Your task to perform on an android device: Is it going to rain today? Image 0: 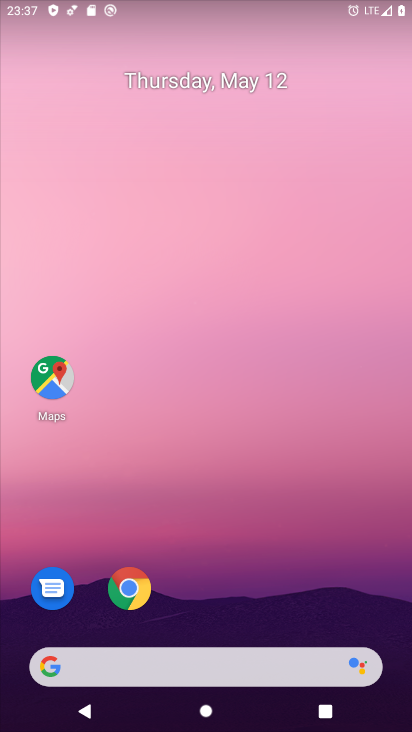
Step 0: drag from (148, 595) to (220, 166)
Your task to perform on an android device: Is it going to rain today? Image 1: 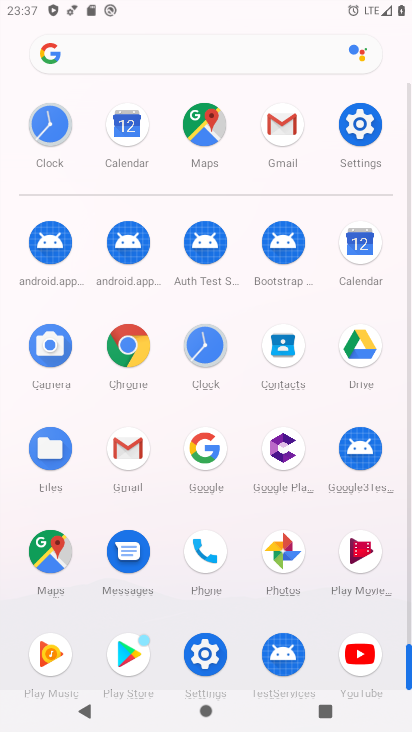
Step 1: click (237, 45)
Your task to perform on an android device: Is it going to rain today? Image 2: 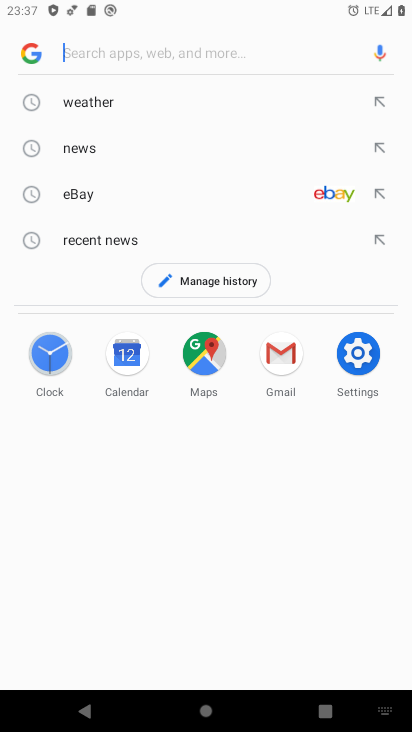
Step 2: type "rain today"
Your task to perform on an android device: Is it going to rain today? Image 3: 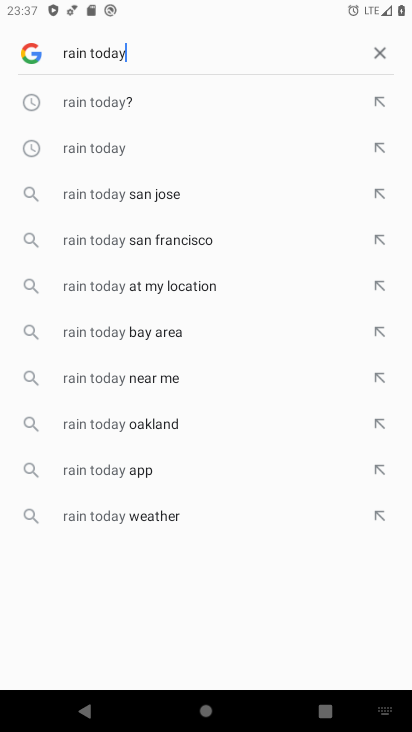
Step 3: click (122, 83)
Your task to perform on an android device: Is it going to rain today? Image 4: 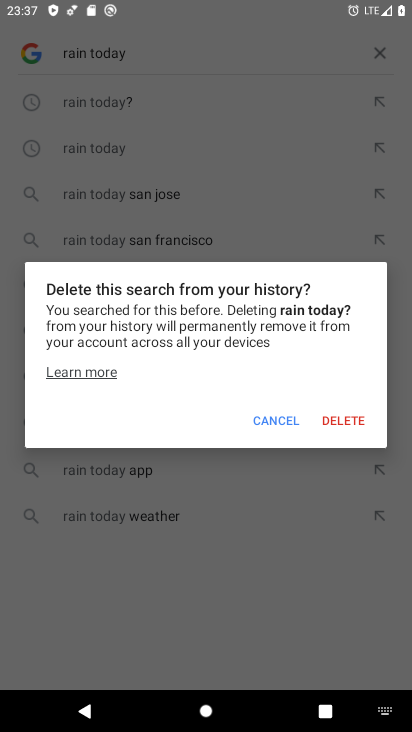
Step 4: click (278, 411)
Your task to perform on an android device: Is it going to rain today? Image 5: 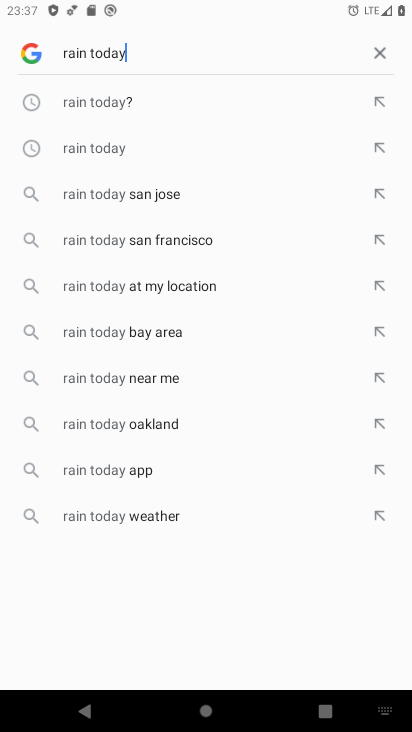
Step 5: click (103, 117)
Your task to perform on an android device: Is it going to rain today? Image 6: 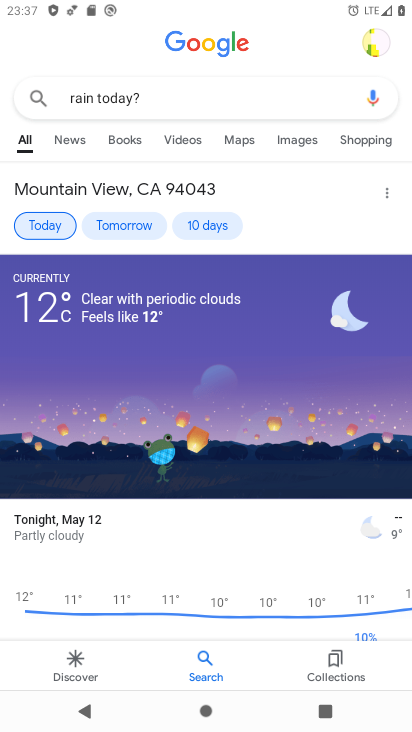
Step 6: task complete